Your task to perform on an android device: Go to accessibility settings Image 0: 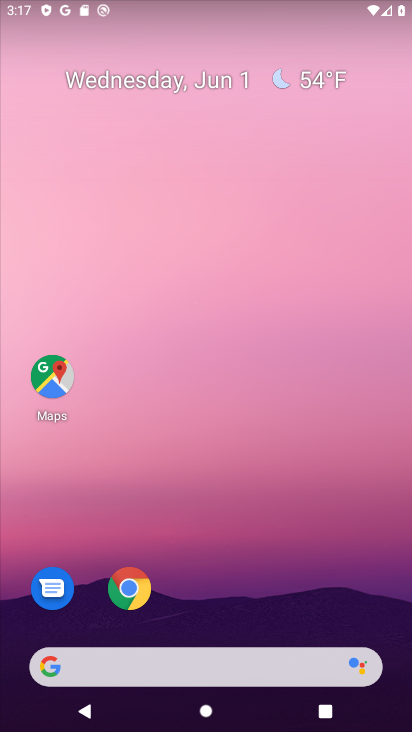
Step 0: drag from (218, 610) to (297, 117)
Your task to perform on an android device: Go to accessibility settings Image 1: 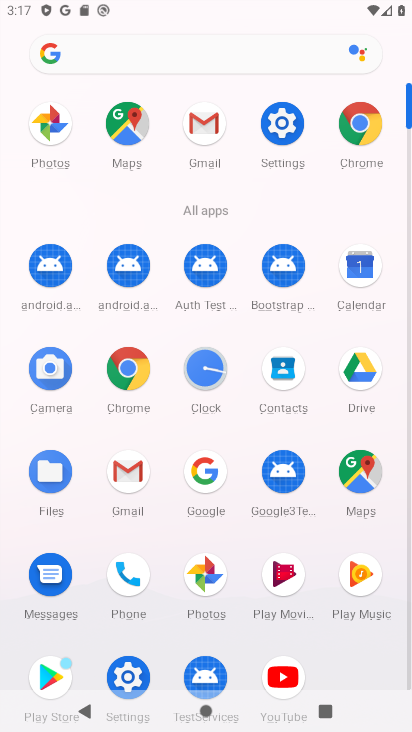
Step 1: click (291, 150)
Your task to perform on an android device: Go to accessibility settings Image 2: 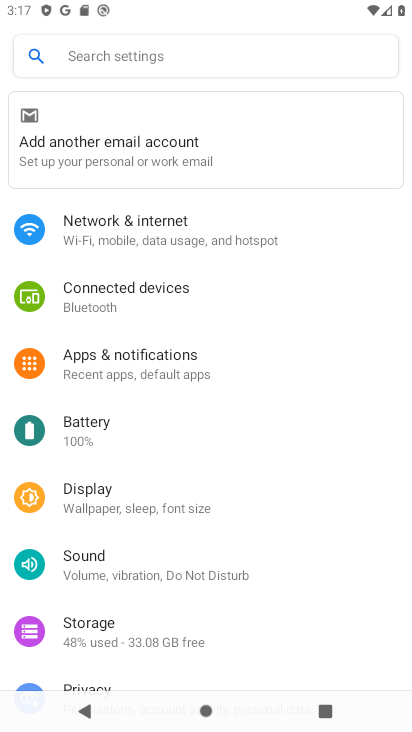
Step 2: drag from (172, 536) to (241, 207)
Your task to perform on an android device: Go to accessibility settings Image 3: 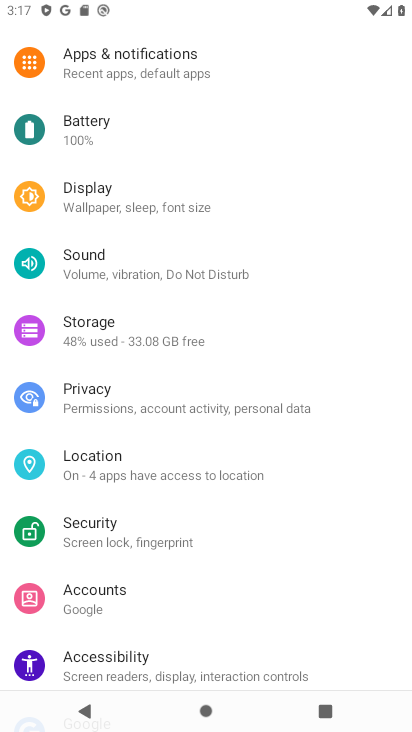
Step 3: click (123, 665)
Your task to perform on an android device: Go to accessibility settings Image 4: 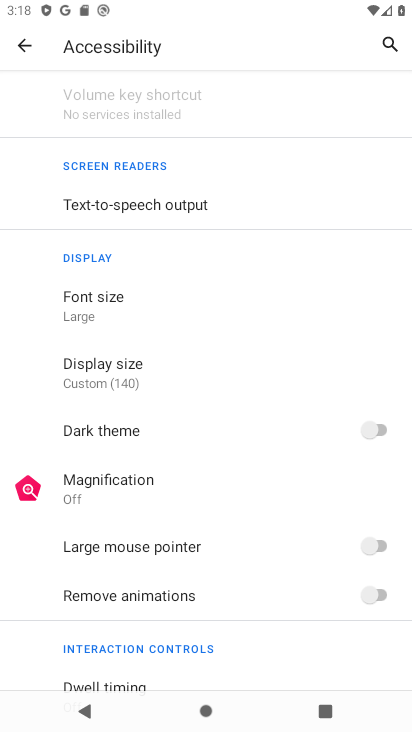
Step 4: task complete